Your task to perform on an android device: turn on notifications settings in the gmail app Image 0: 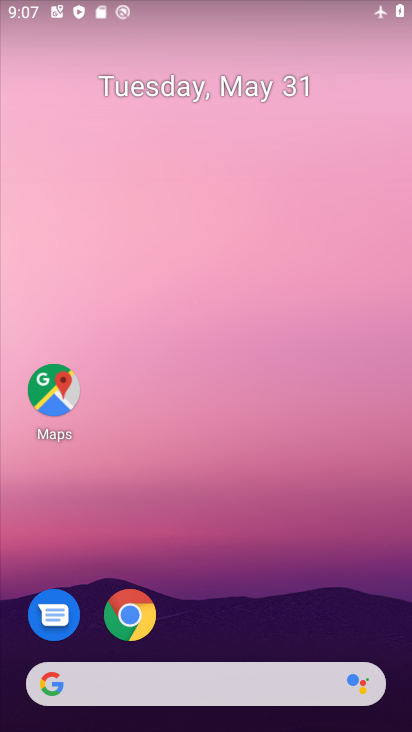
Step 0: drag from (378, 629) to (320, 135)
Your task to perform on an android device: turn on notifications settings in the gmail app Image 1: 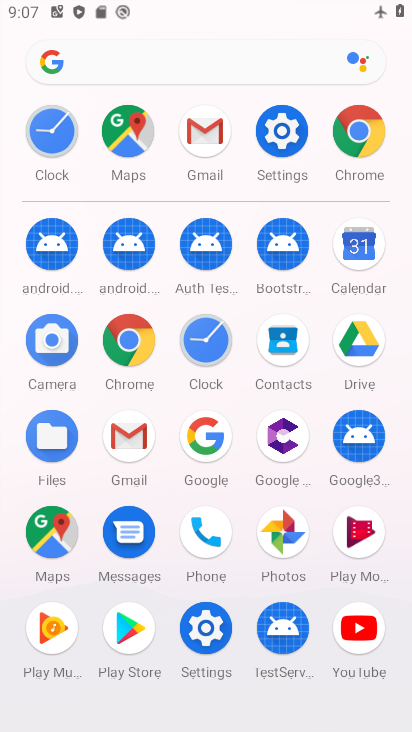
Step 1: click (127, 437)
Your task to perform on an android device: turn on notifications settings in the gmail app Image 2: 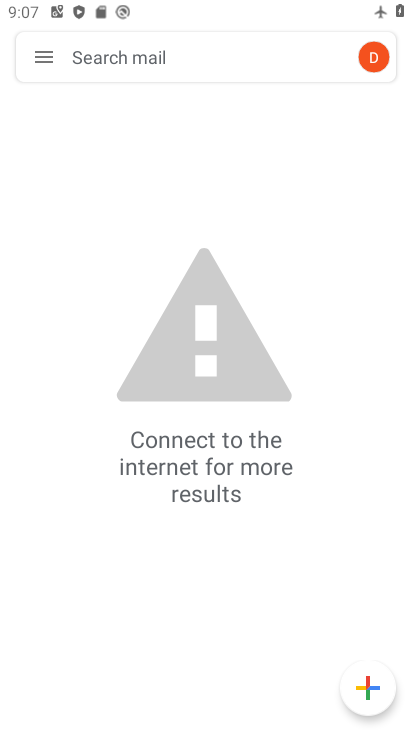
Step 2: click (44, 56)
Your task to perform on an android device: turn on notifications settings in the gmail app Image 3: 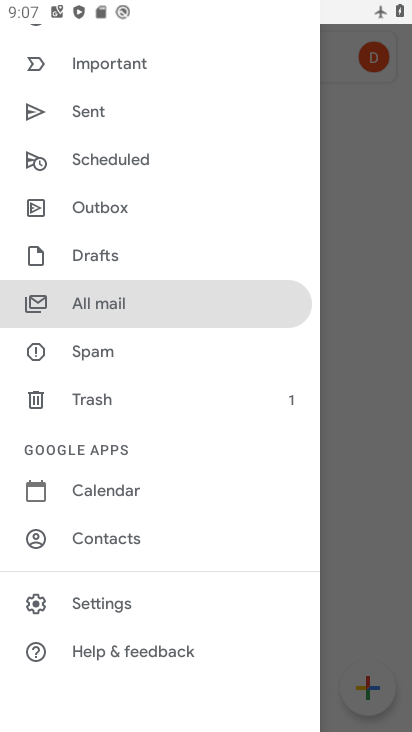
Step 3: click (84, 600)
Your task to perform on an android device: turn on notifications settings in the gmail app Image 4: 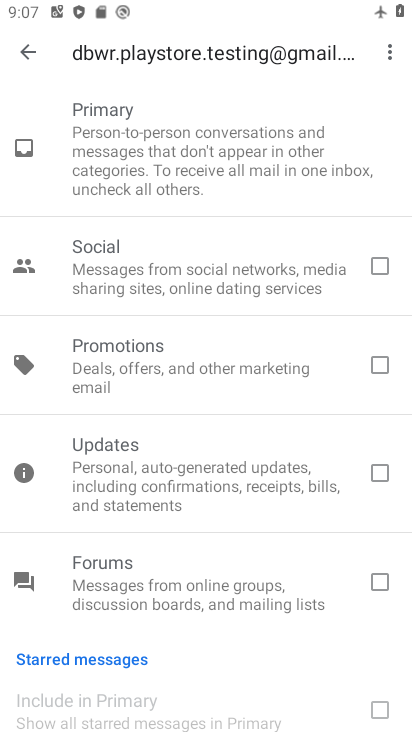
Step 4: press back button
Your task to perform on an android device: turn on notifications settings in the gmail app Image 5: 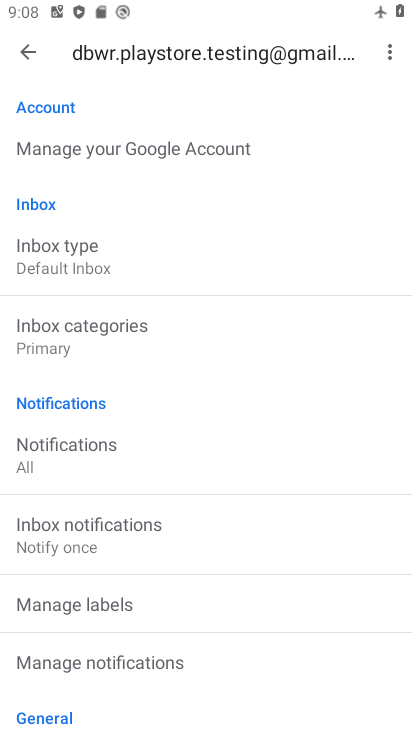
Step 5: click (108, 658)
Your task to perform on an android device: turn on notifications settings in the gmail app Image 6: 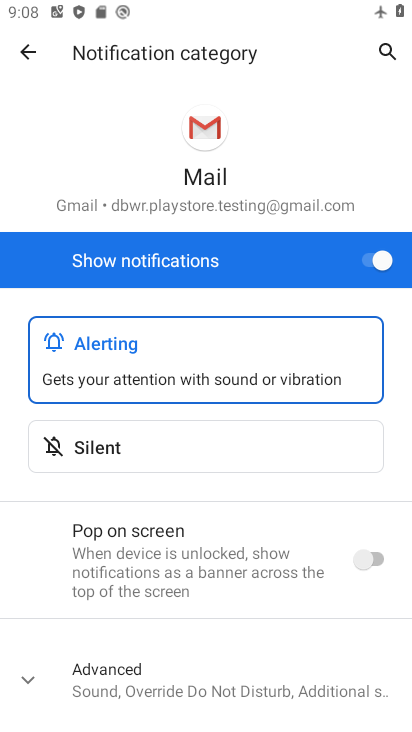
Step 6: task complete